Your task to perform on an android device: What's a good restaurant in Sacramento? Image 0: 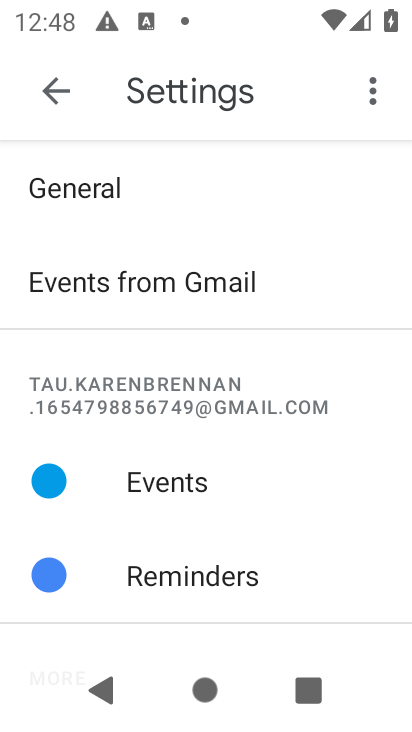
Step 0: press home button
Your task to perform on an android device: What's a good restaurant in Sacramento? Image 1: 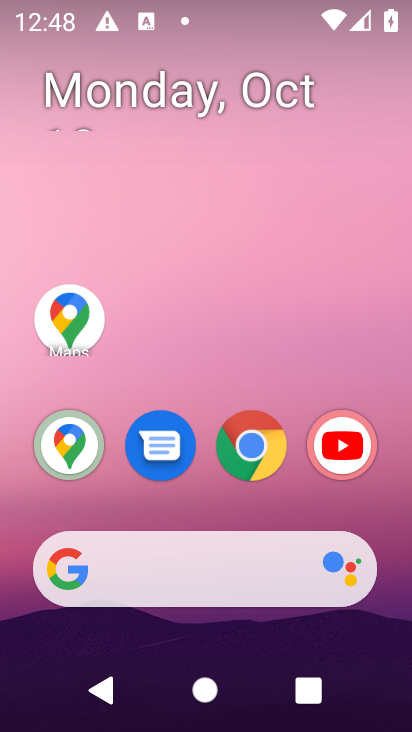
Step 1: click (64, 567)
Your task to perform on an android device: What's a good restaurant in Sacramento? Image 2: 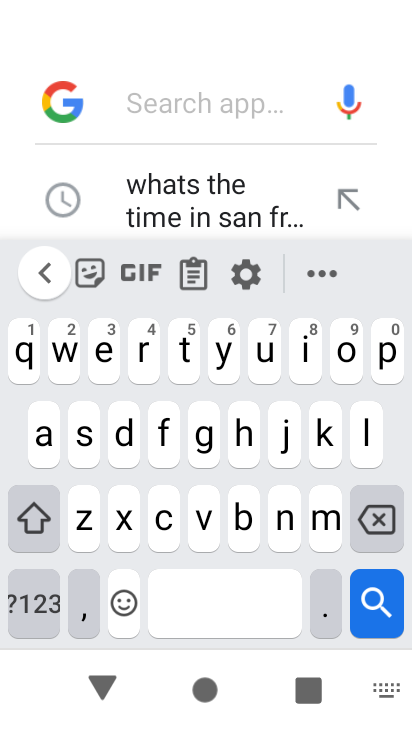
Step 2: click (166, 99)
Your task to perform on an android device: What's a good restaurant in Sacramento? Image 3: 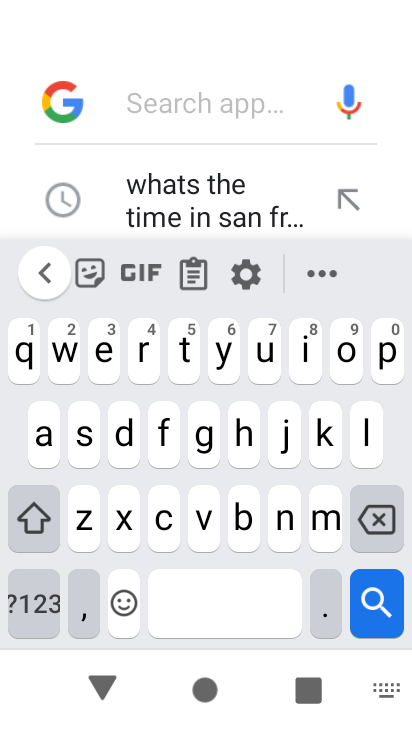
Step 3: type "whats a good restaurant in sacramento?"
Your task to perform on an android device: What's a good restaurant in Sacramento? Image 4: 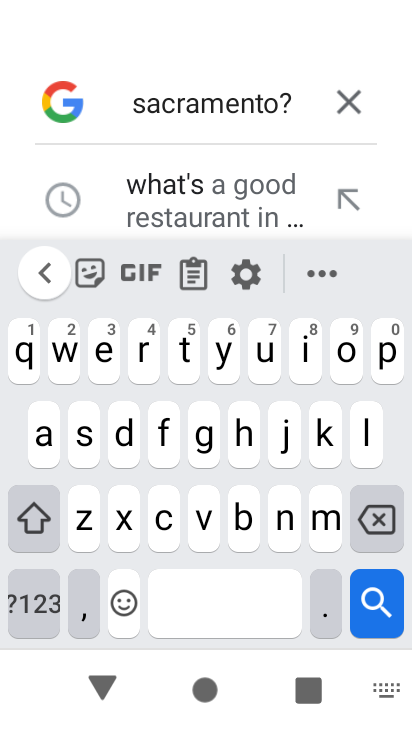
Step 4: click (233, 187)
Your task to perform on an android device: What's a good restaurant in Sacramento? Image 5: 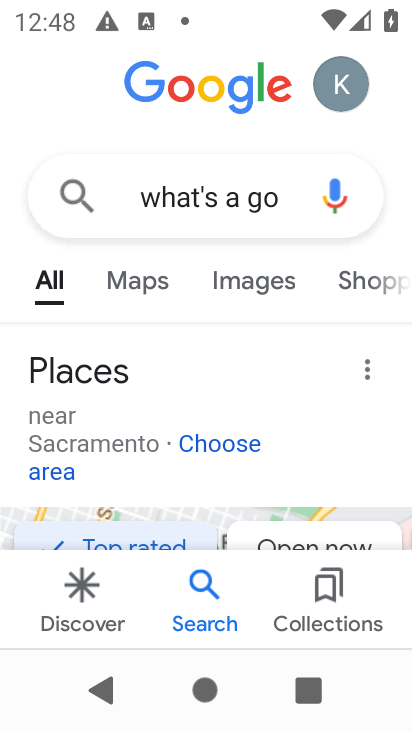
Step 5: task complete